Your task to perform on an android device: change notification settings in the gmail app Image 0: 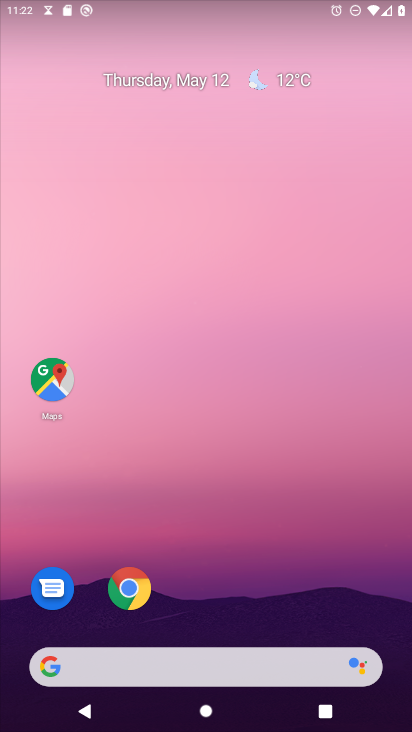
Step 0: drag from (254, 601) to (229, 175)
Your task to perform on an android device: change notification settings in the gmail app Image 1: 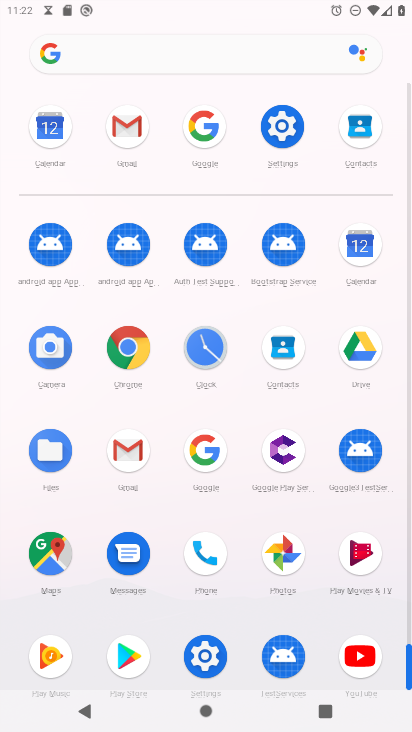
Step 1: click (128, 124)
Your task to perform on an android device: change notification settings in the gmail app Image 2: 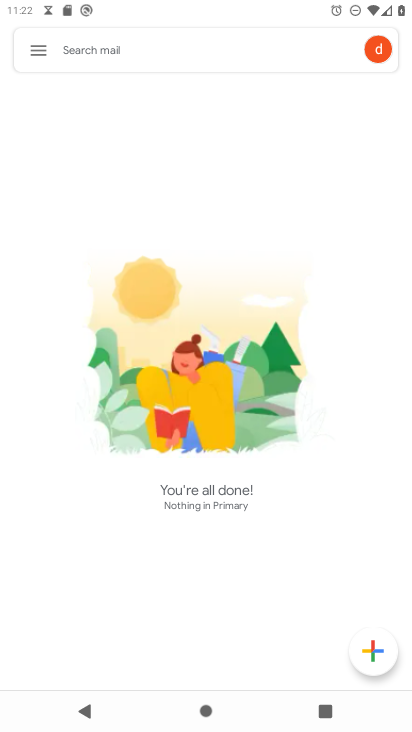
Step 2: click (34, 46)
Your task to perform on an android device: change notification settings in the gmail app Image 3: 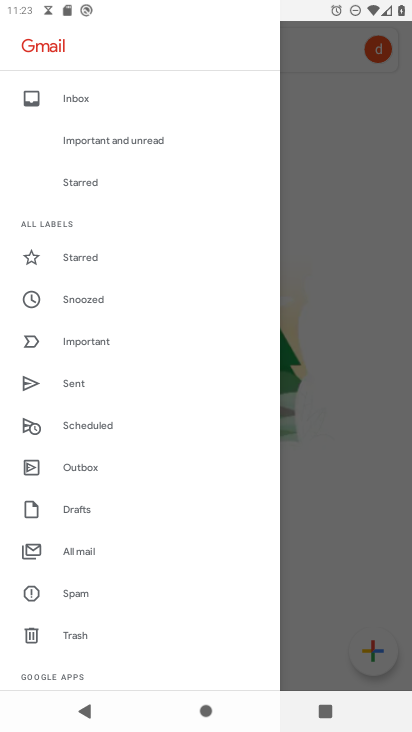
Step 3: drag from (93, 597) to (149, 475)
Your task to perform on an android device: change notification settings in the gmail app Image 4: 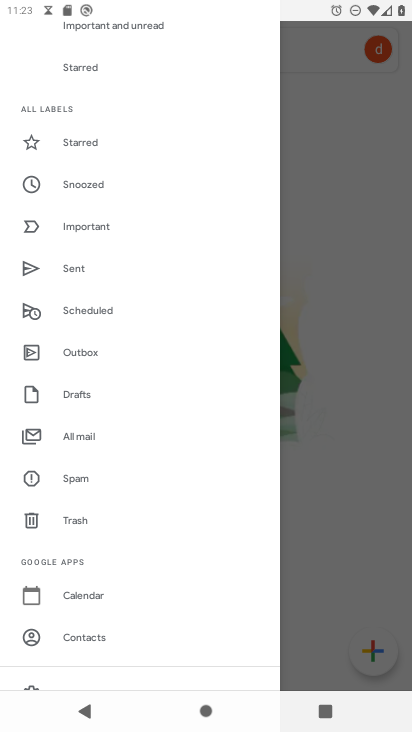
Step 4: drag from (86, 611) to (132, 446)
Your task to perform on an android device: change notification settings in the gmail app Image 5: 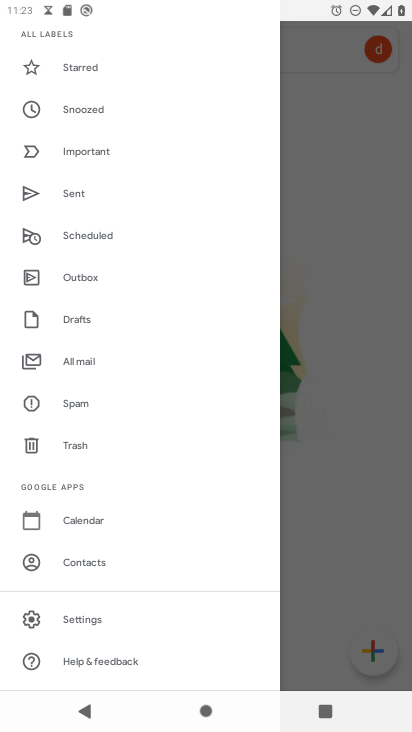
Step 5: click (74, 616)
Your task to perform on an android device: change notification settings in the gmail app Image 6: 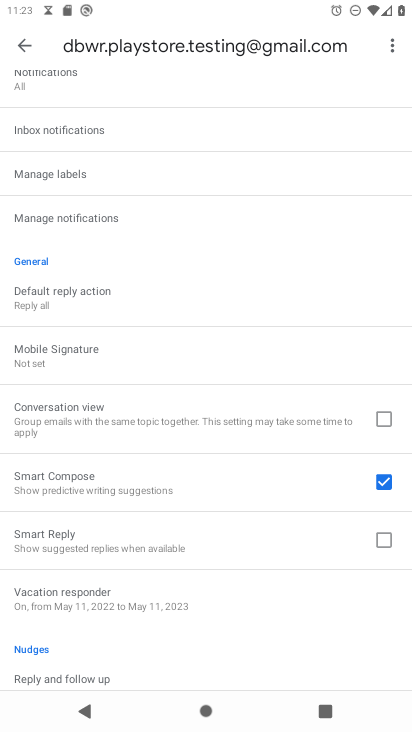
Step 6: drag from (92, 564) to (154, 422)
Your task to perform on an android device: change notification settings in the gmail app Image 7: 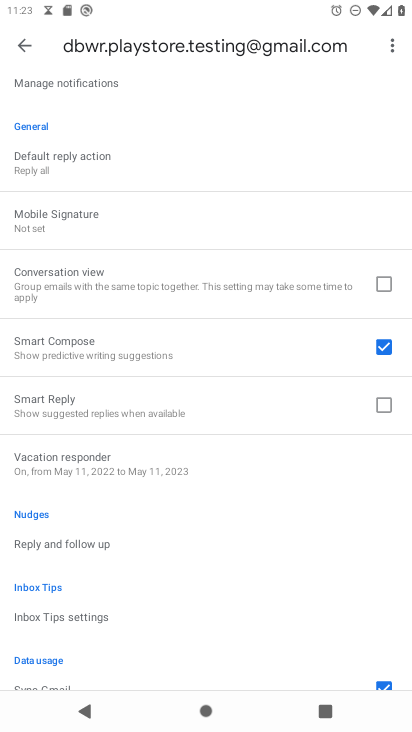
Step 7: drag from (118, 183) to (125, 285)
Your task to perform on an android device: change notification settings in the gmail app Image 8: 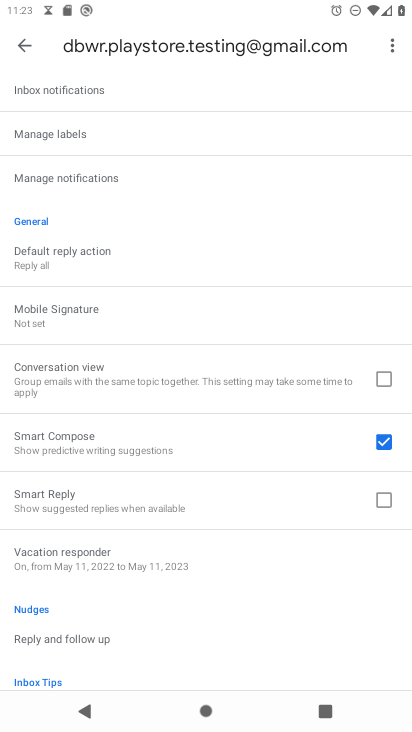
Step 8: click (85, 175)
Your task to perform on an android device: change notification settings in the gmail app Image 9: 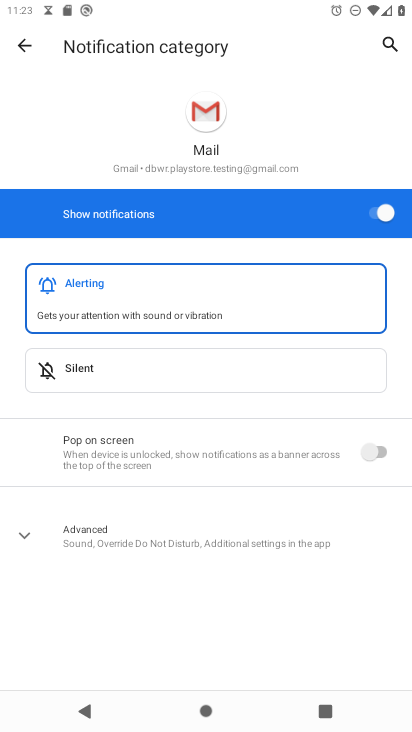
Step 9: click (380, 208)
Your task to perform on an android device: change notification settings in the gmail app Image 10: 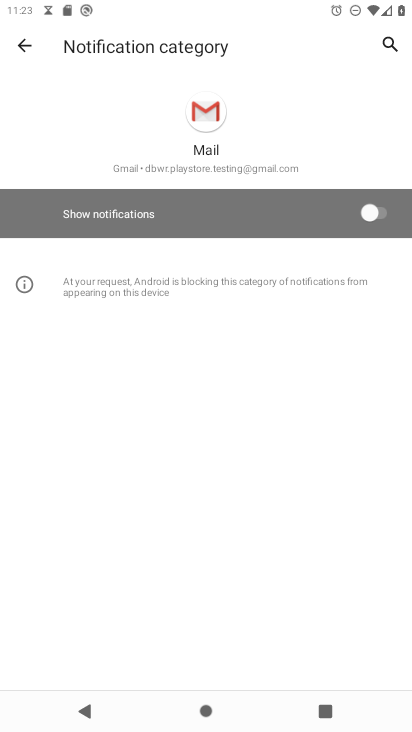
Step 10: task complete